Your task to perform on an android device: Show me the alarms in the clock app Image 0: 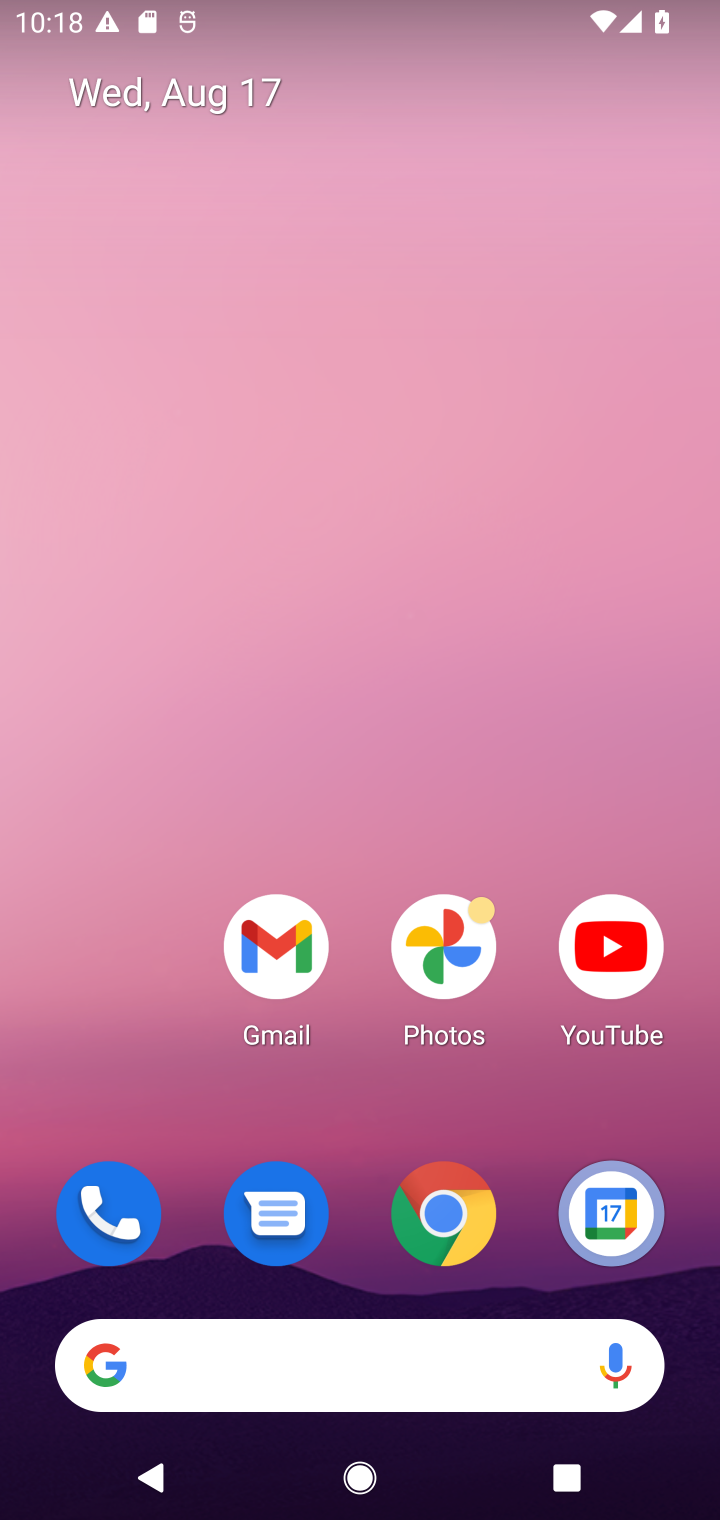
Step 0: drag from (508, 1083) to (124, 133)
Your task to perform on an android device: Show me the alarms in the clock app Image 1: 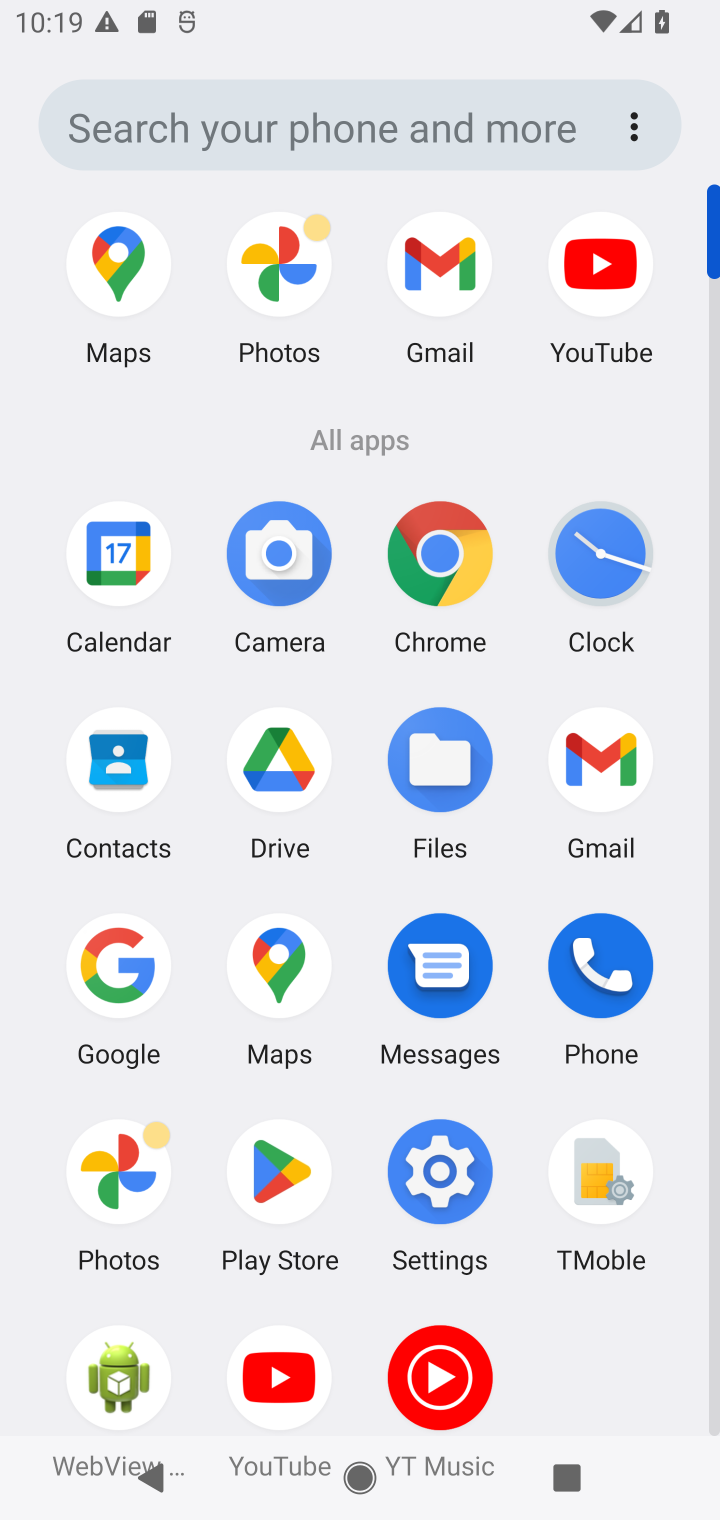
Step 1: click (592, 524)
Your task to perform on an android device: Show me the alarms in the clock app Image 2: 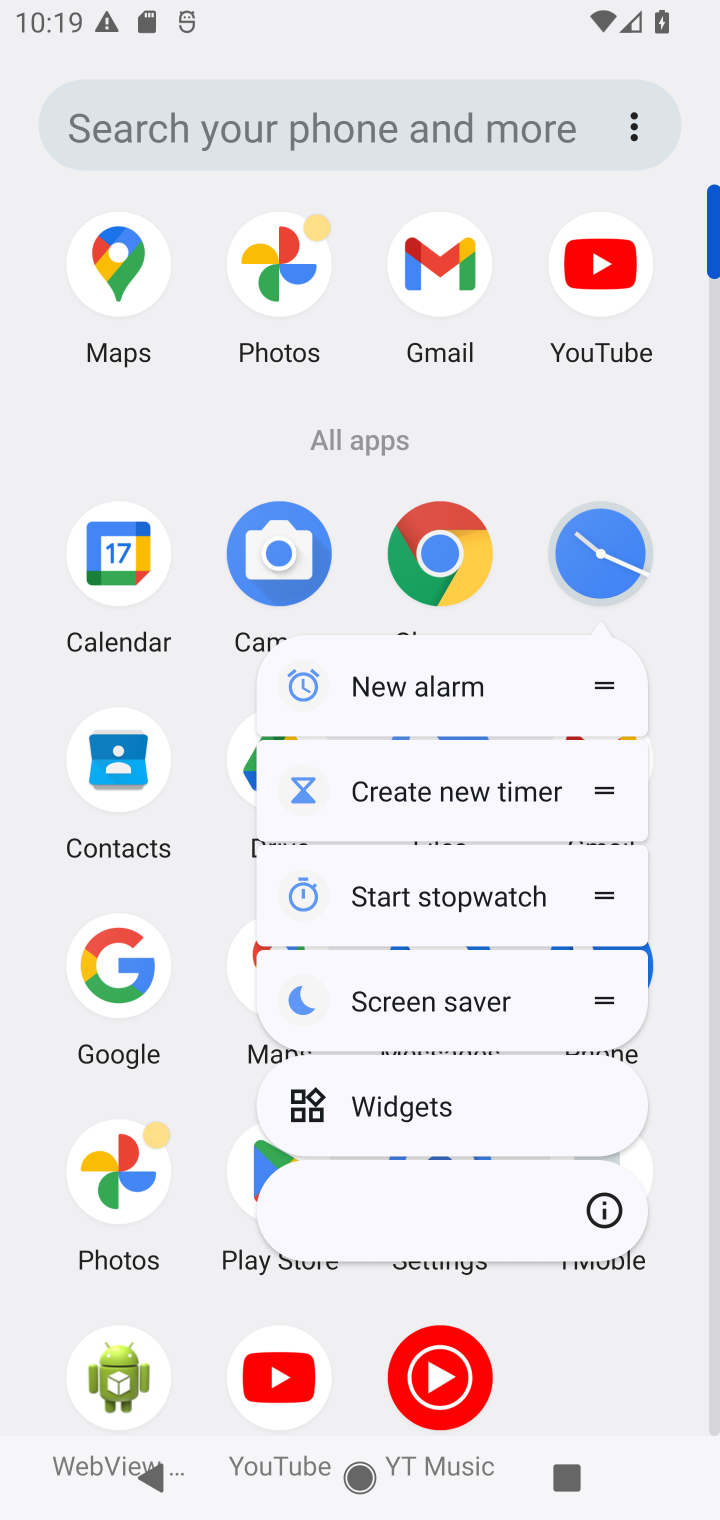
Step 2: click (592, 524)
Your task to perform on an android device: Show me the alarms in the clock app Image 3: 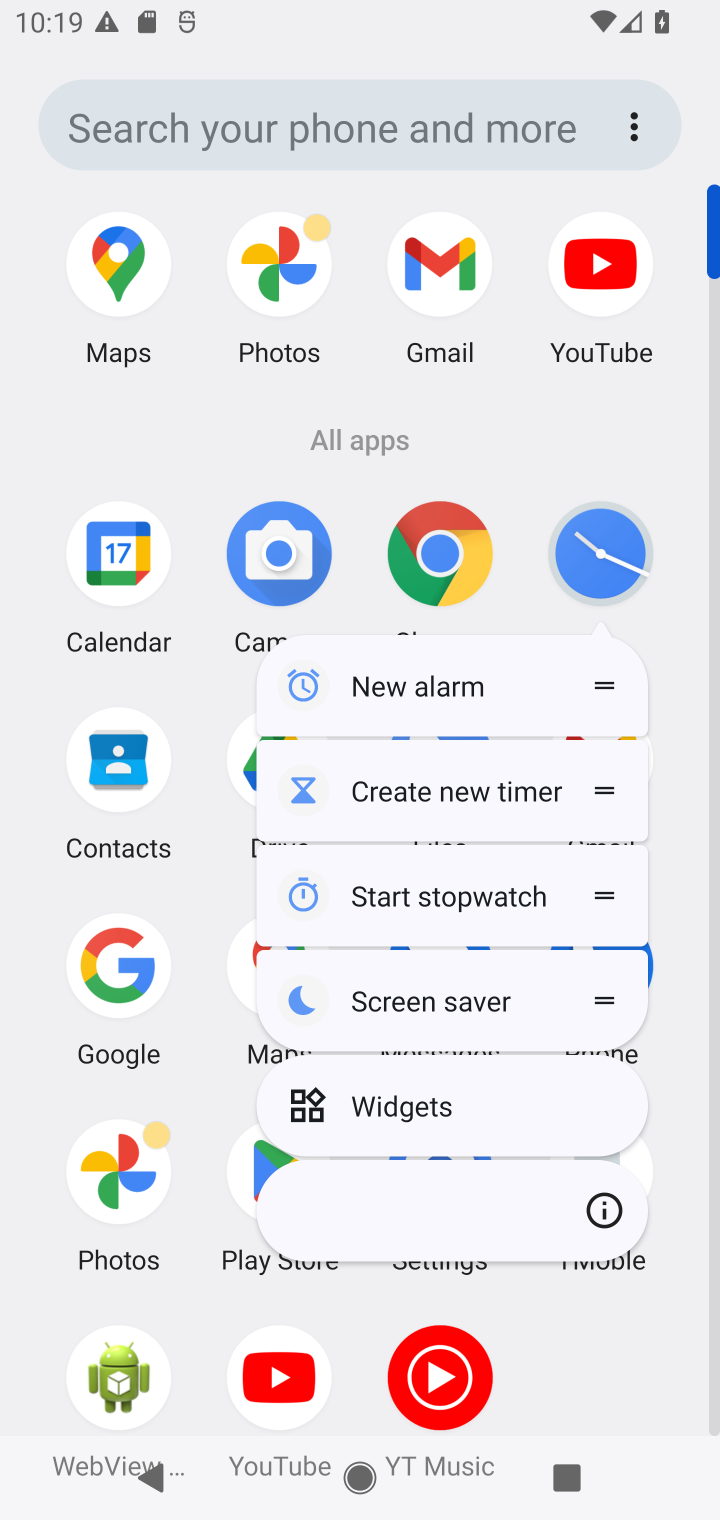
Step 3: click (592, 524)
Your task to perform on an android device: Show me the alarms in the clock app Image 4: 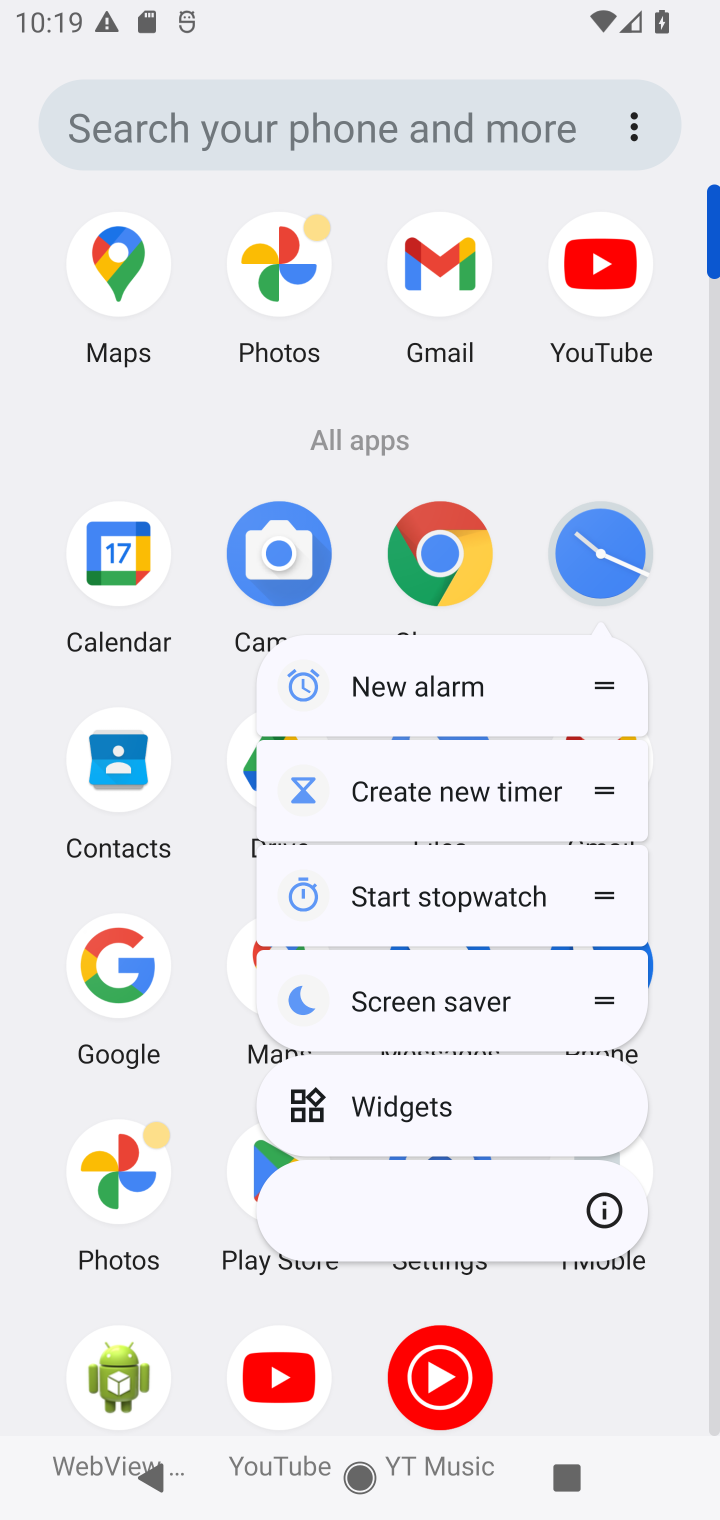
Step 4: click (592, 524)
Your task to perform on an android device: Show me the alarms in the clock app Image 5: 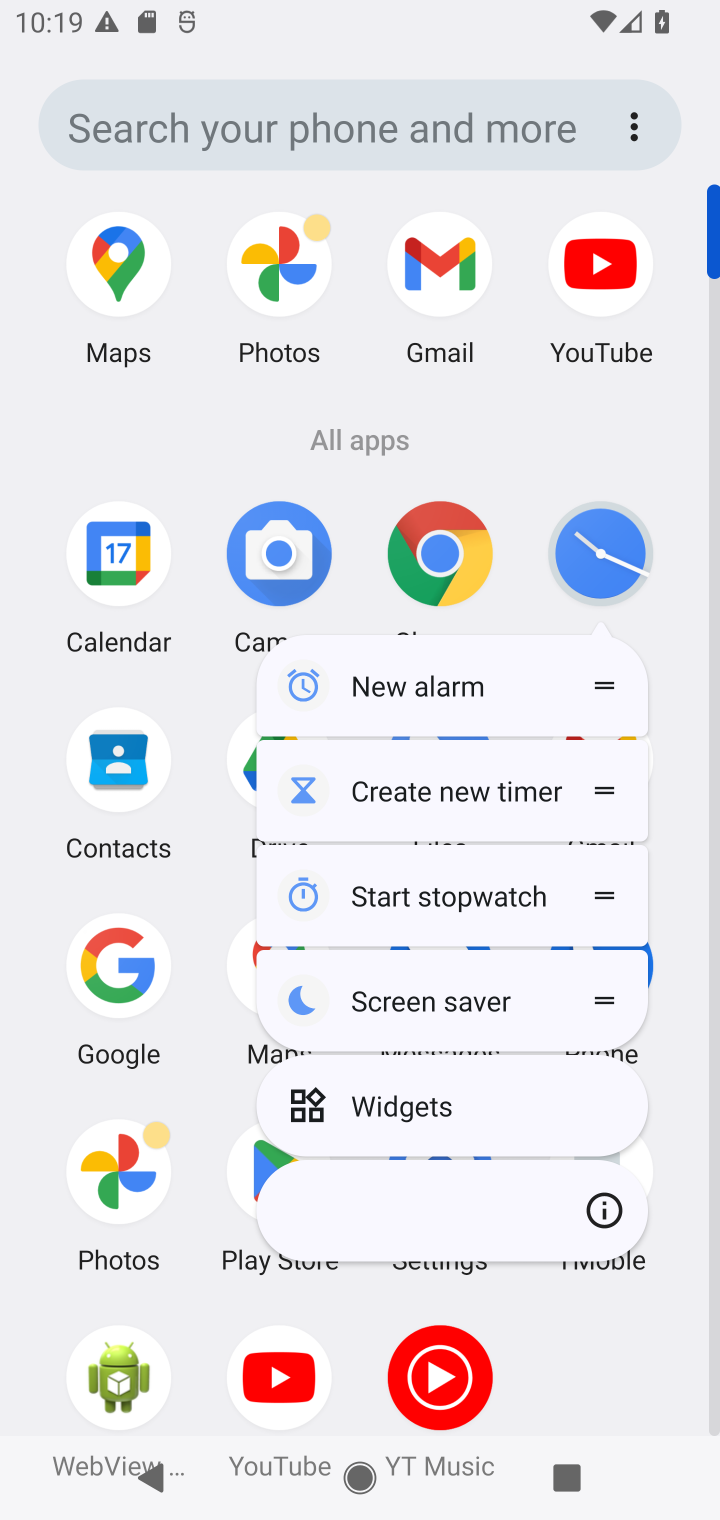
Step 5: click (592, 524)
Your task to perform on an android device: Show me the alarms in the clock app Image 6: 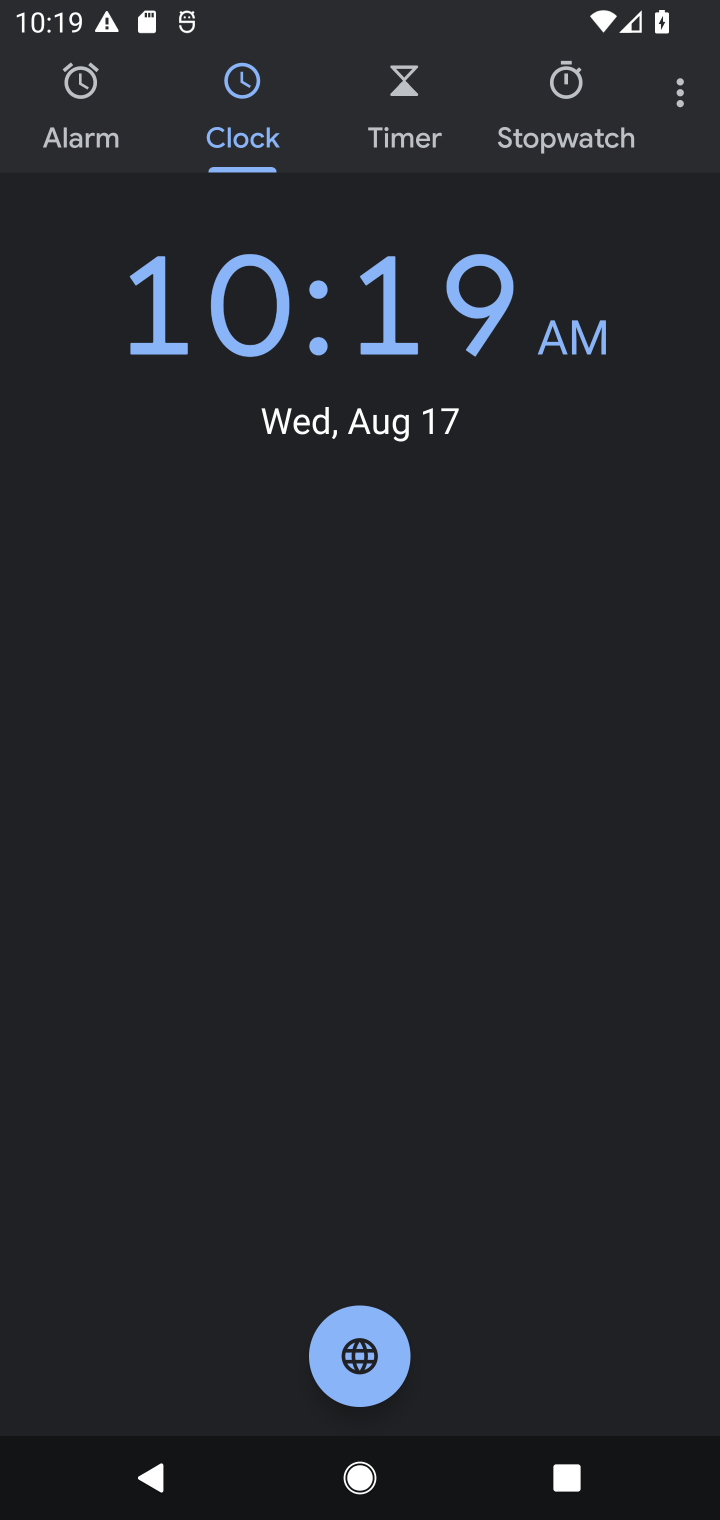
Step 6: click (79, 93)
Your task to perform on an android device: Show me the alarms in the clock app Image 7: 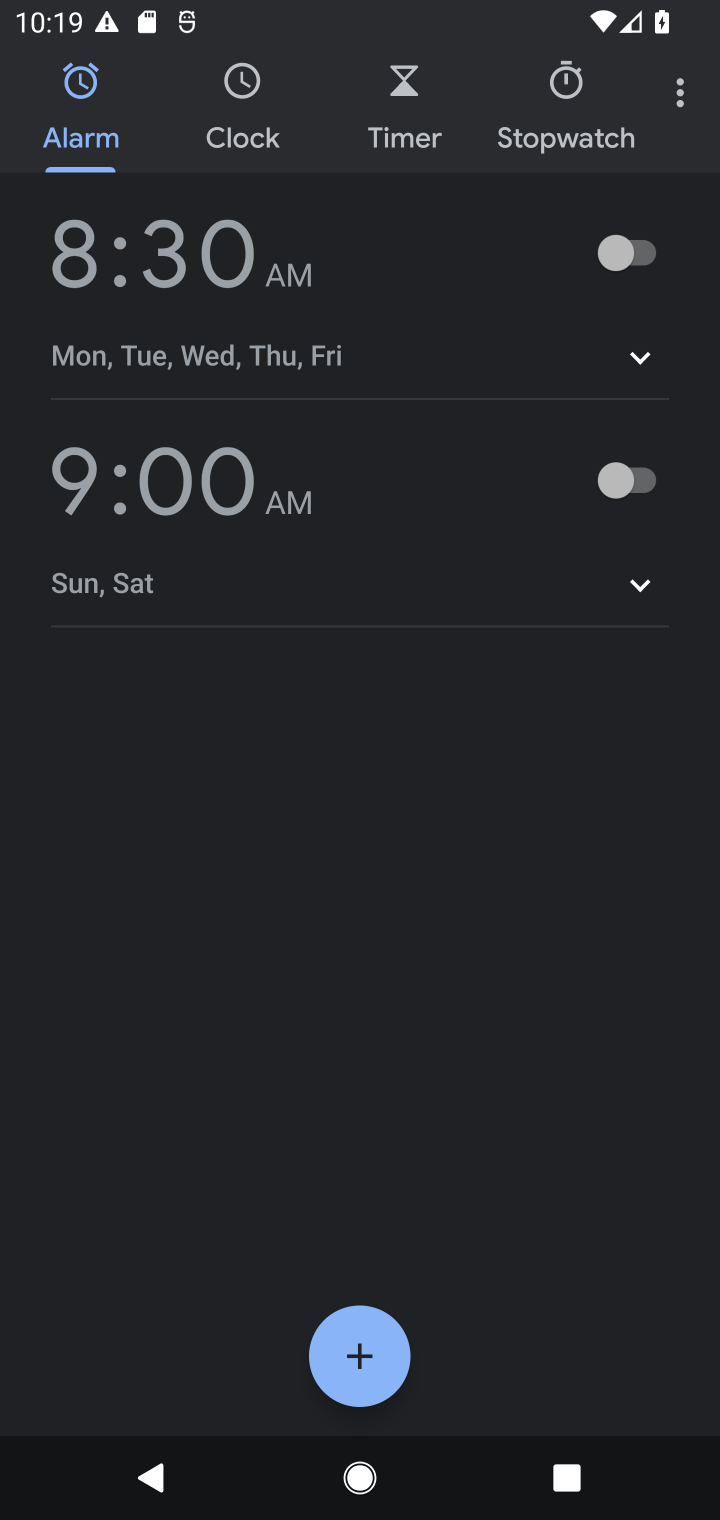
Step 7: click (619, 261)
Your task to perform on an android device: Show me the alarms in the clock app Image 8: 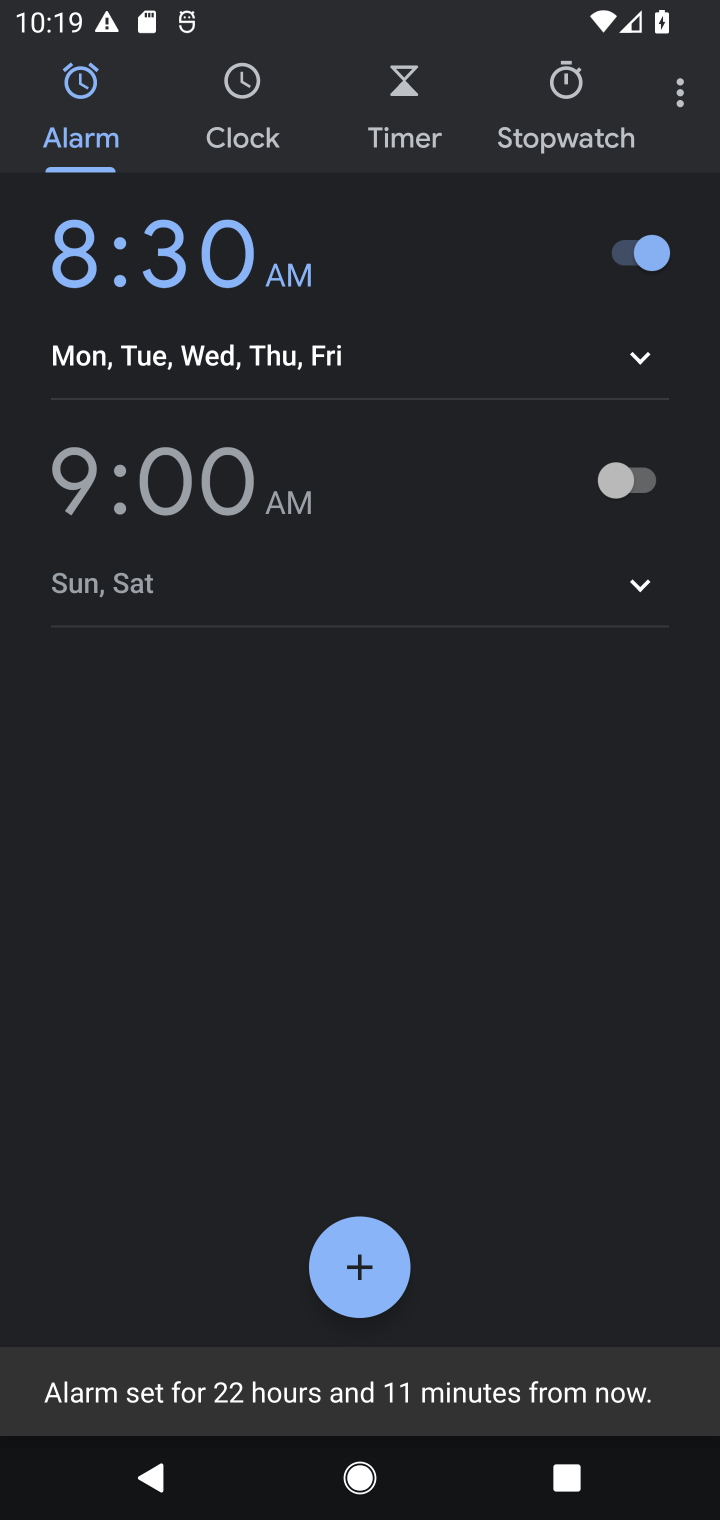
Step 8: task complete